Your task to perform on an android device: What is the news today? Image 0: 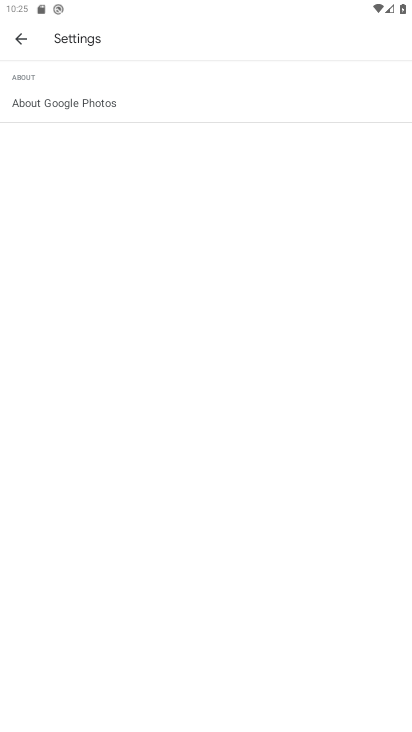
Step 0: press home button
Your task to perform on an android device: What is the news today? Image 1: 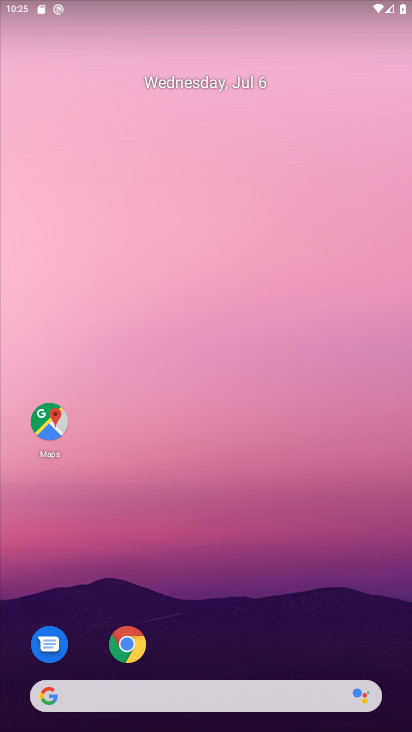
Step 1: drag from (267, 630) to (176, 100)
Your task to perform on an android device: What is the news today? Image 2: 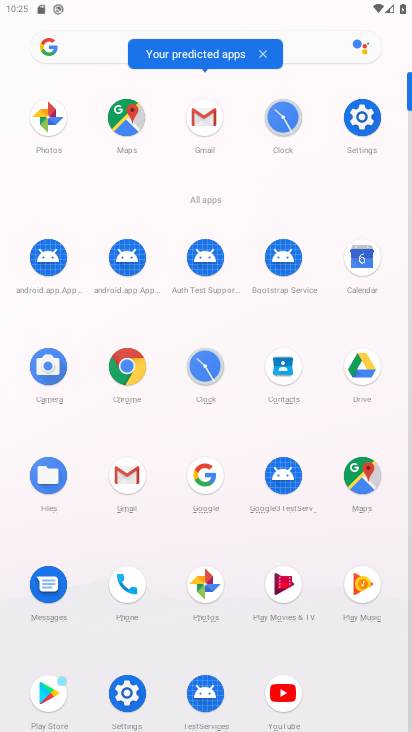
Step 2: click (130, 372)
Your task to perform on an android device: What is the news today? Image 3: 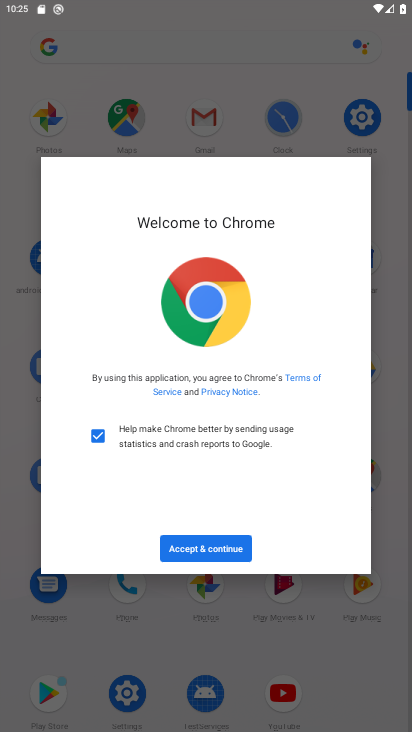
Step 3: click (216, 551)
Your task to perform on an android device: What is the news today? Image 4: 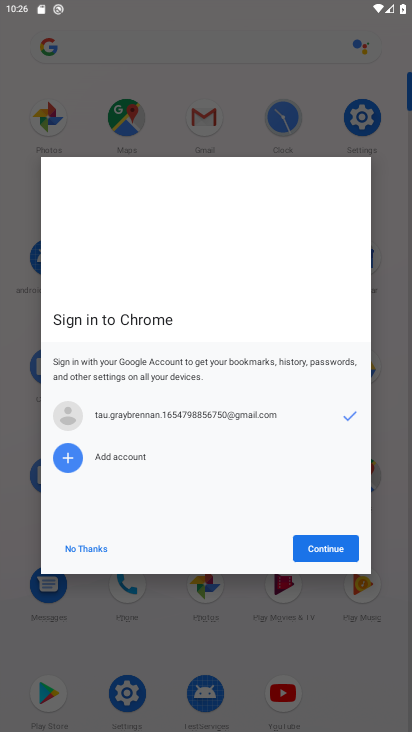
Step 4: click (325, 547)
Your task to perform on an android device: What is the news today? Image 5: 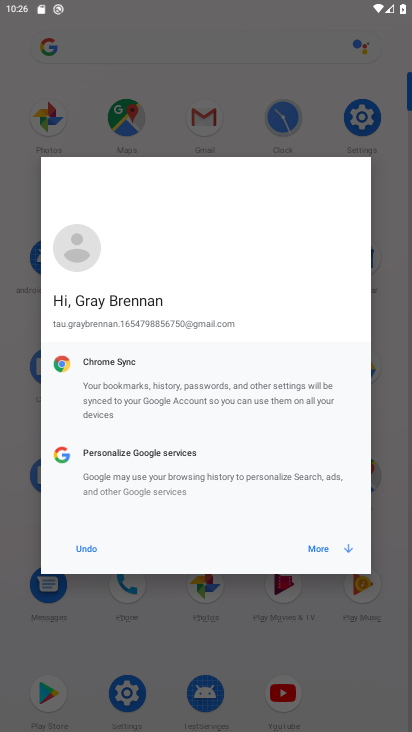
Step 5: click (325, 547)
Your task to perform on an android device: What is the news today? Image 6: 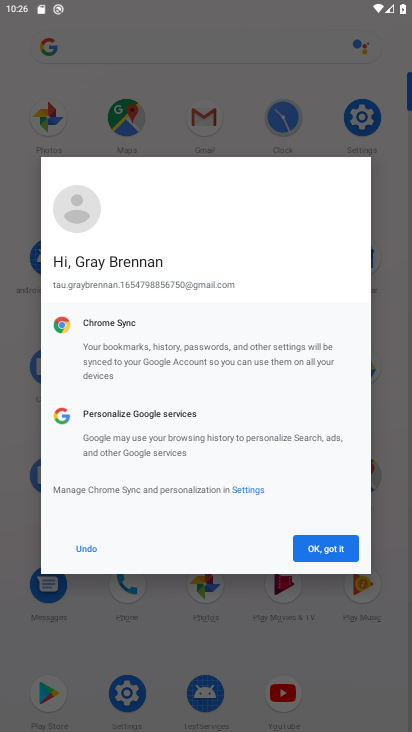
Step 6: click (325, 547)
Your task to perform on an android device: What is the news today? Image 7: 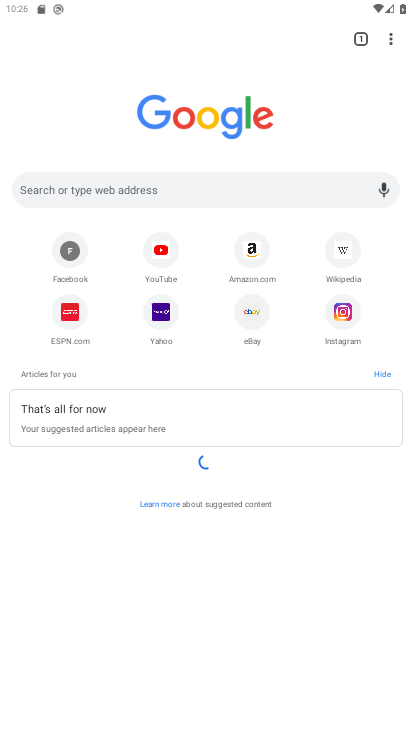
Step 7: click (236, 194)
Your task to perform on an android device: What is the news today? Image 8: 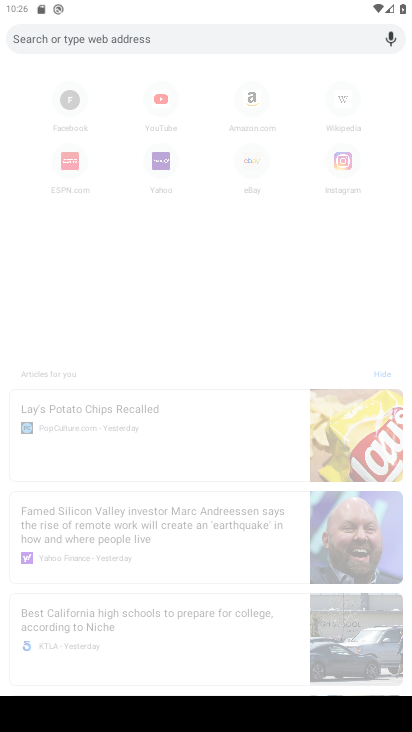
Step 8: type "What is the news today?"
Your task to perform on an android device: What is the news today? Image 9: 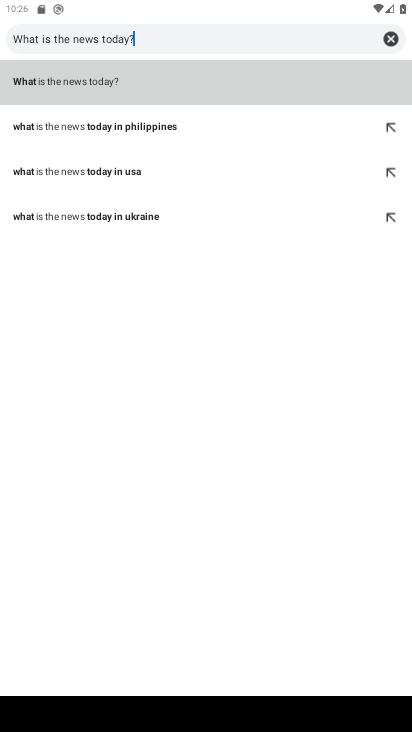
Step 9: click (266, 83)
Your task to perform on an android device: What is the news today? Image 10: 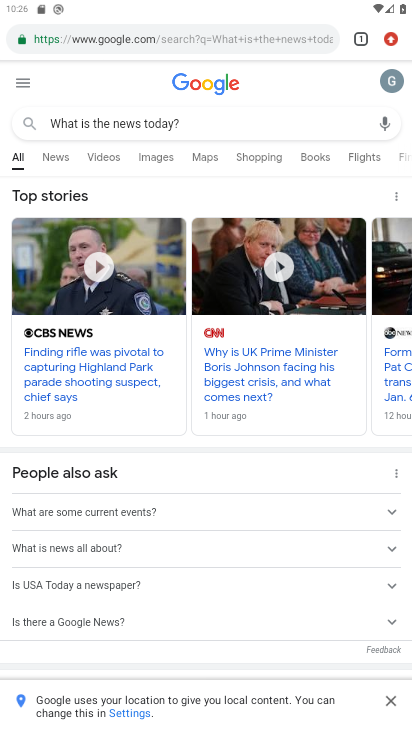
Step 10: task complete